Your task to perform on an android device: change the clock display to analog Image 0: 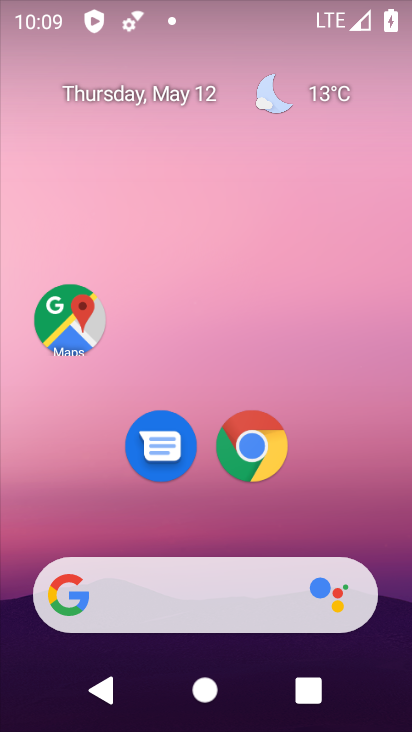
Step 0: drag from (242, 558) to (352, 15)
Your task to perform on an android device: change the clock display to analog Image 1: 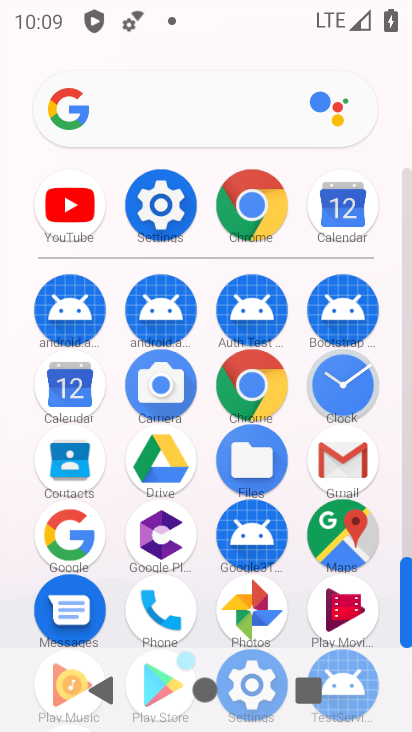
Step 1: click (338, 390)
Your task to perform on an android device: change the clock display to analog Image 2: 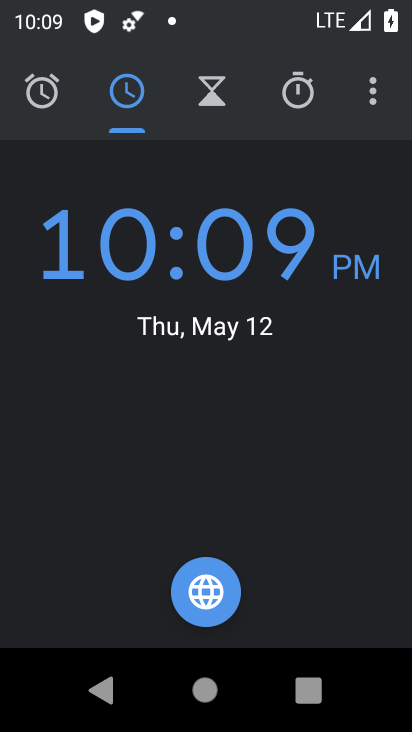
Step 2: click (367, 88)
Your task to perform on an android device: change the clock display to analog Image 3: 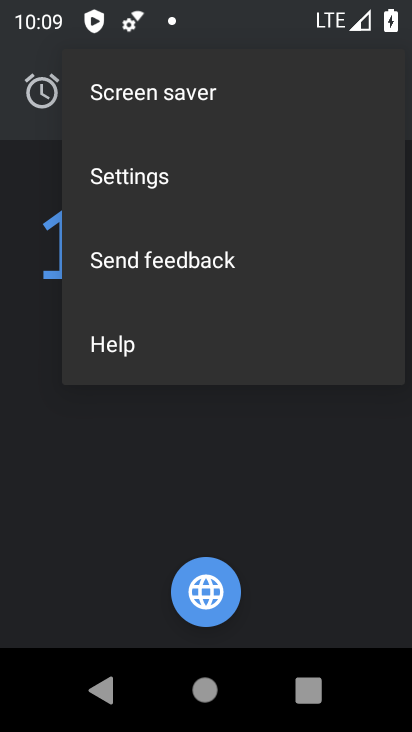
Step 3: click (181, 170)
Your task to perform on an android device: change the clock display to analog Image 4: 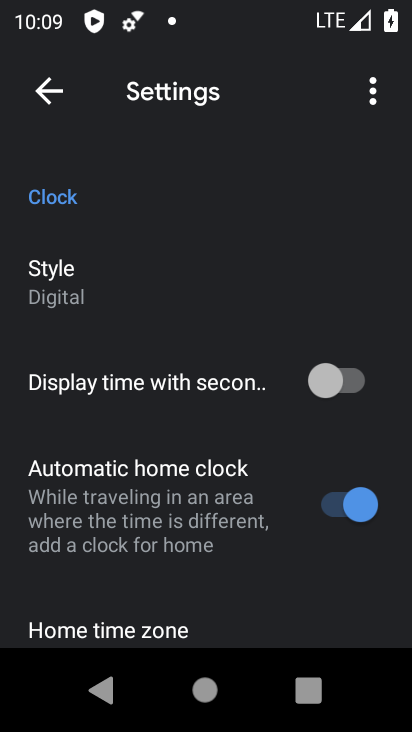
Step 4: click (117, 282)
Your task to perform on an android device: change the clock display to analog Image 5: 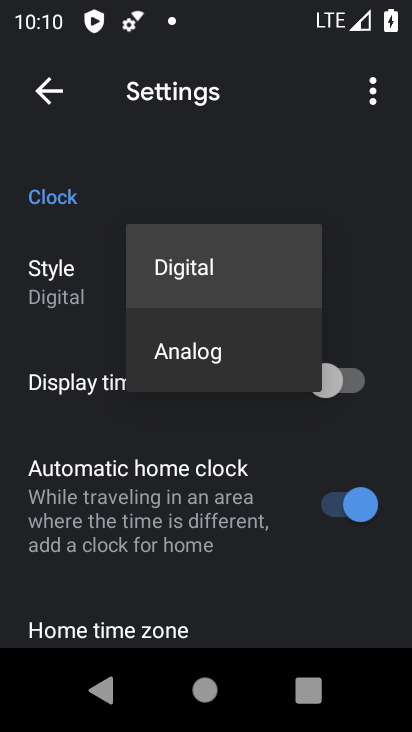
Step 5: click (172, 351)
Your task to perform on an android device: change the clock display to analog Image 6: 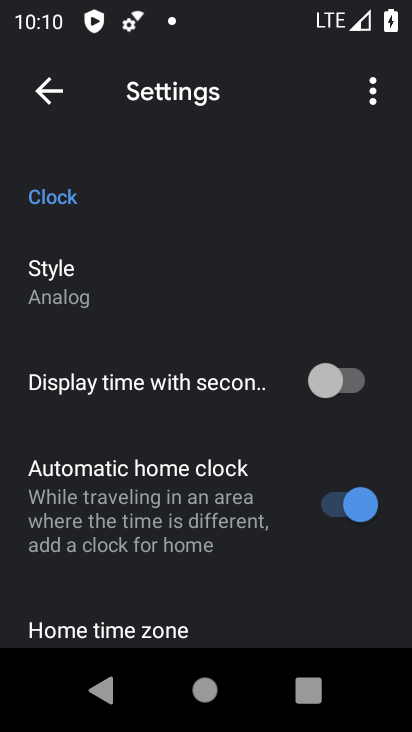
Step 6: task complete